Your task to perform on an android device: Open Android settings Image 0: 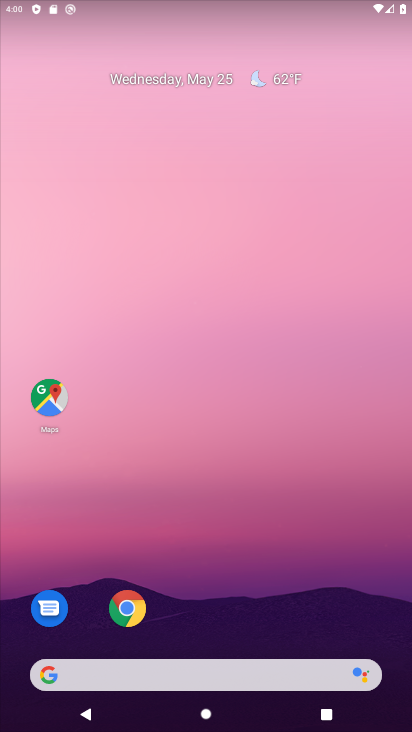
Step 0: drag from (270, 600) to (289, 24)
Your task to perform on an android device: Open Android settings Image 1: 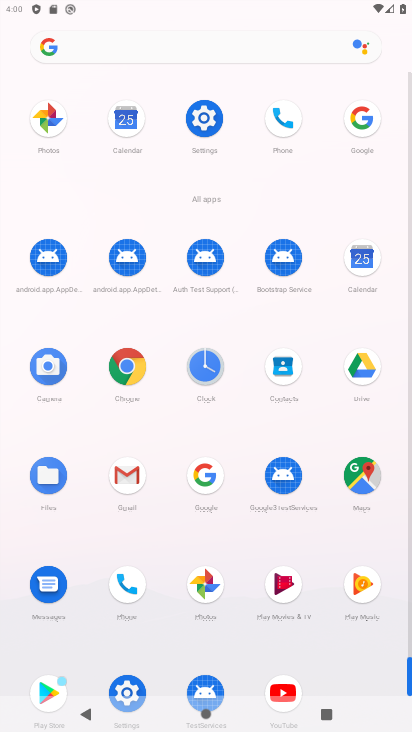
Step 1: click (204, 116)
Your task to perform on an android device: Open Android settings Image 2: 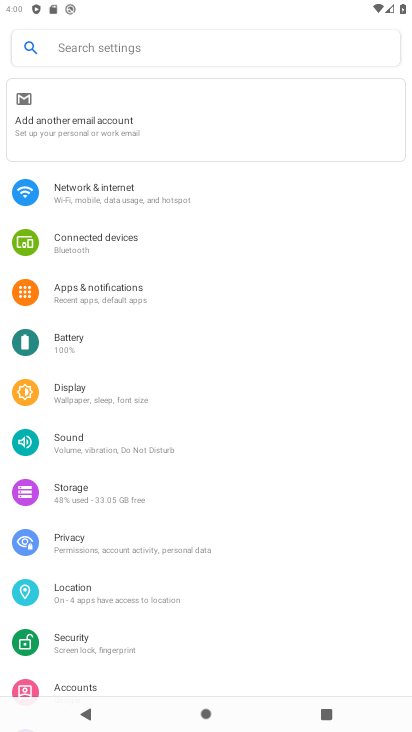
Step 2: task complete